Your task to perform on an android device: Do I have any events tomorrow? Image 0: 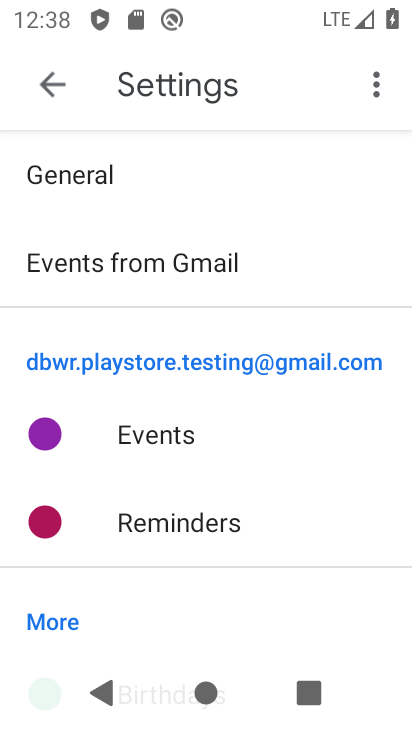
Step 0: press home button
Your task to perform on an android device: Do I have any events tomorrow? Image 1: 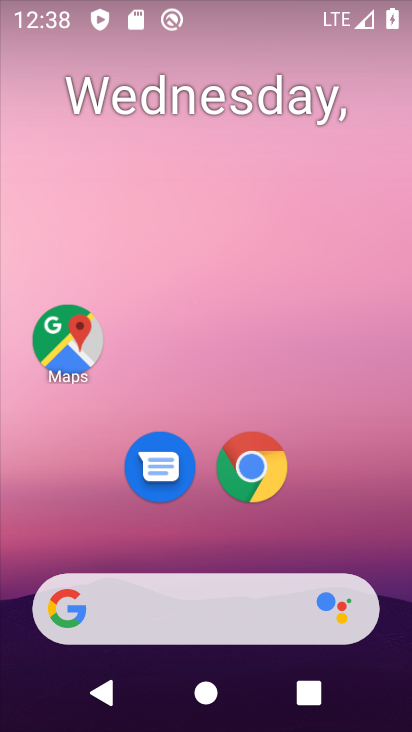
Step 1: drag from (359, 533) to (360, 86)
Your task to perform on an android device: Do I have any events tomorrow? Image 2: 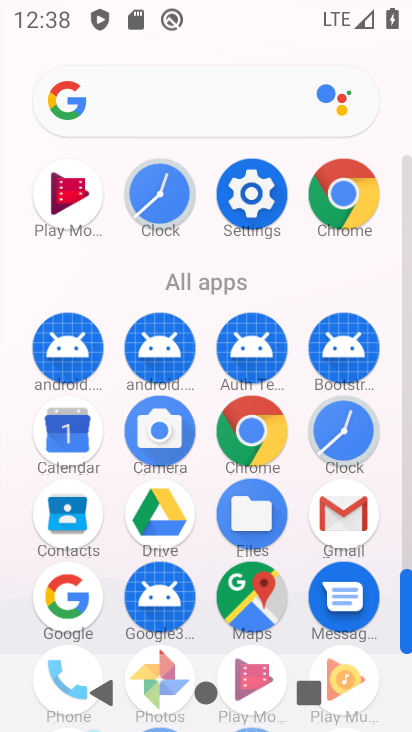
Step 2: click (80, 448)
Your task to perform on an android device: Do I have any events tomorrow? Image 3: 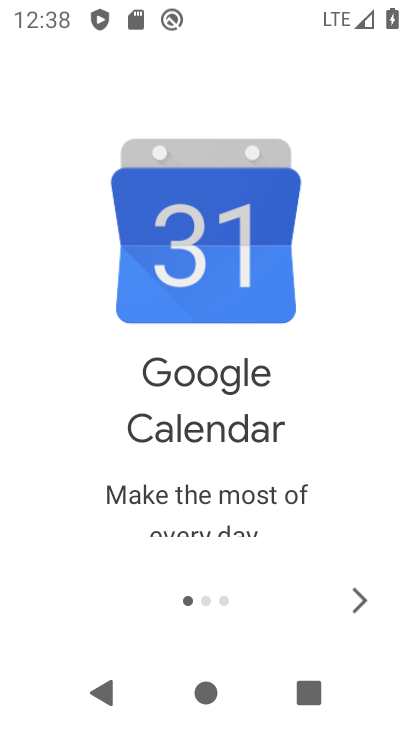
Step 3: click (347, 594)
Your task to perform on an android device: Do I have any events tomorrow? Image 4: 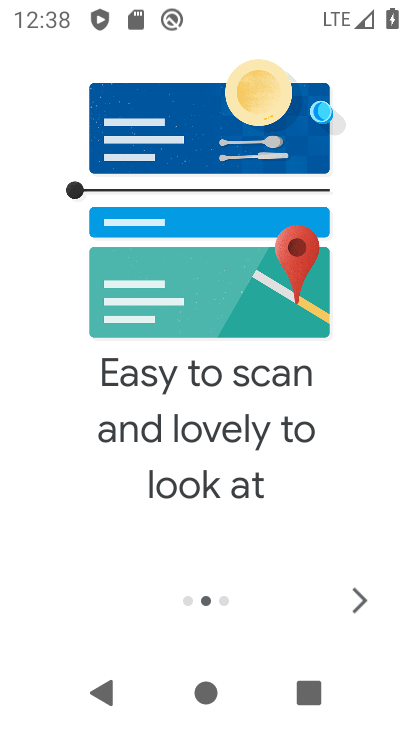
Step 4: click (364, 596)
Your task to perform on an android device: Do I have any events tomorrow? Image 5: 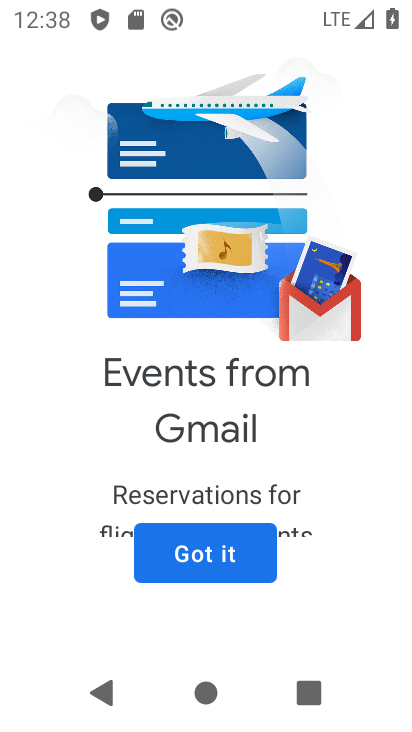
Step 5: click (225, 554)
Your task to perform on an android device: Do I have any events tomorrow? Image 6: 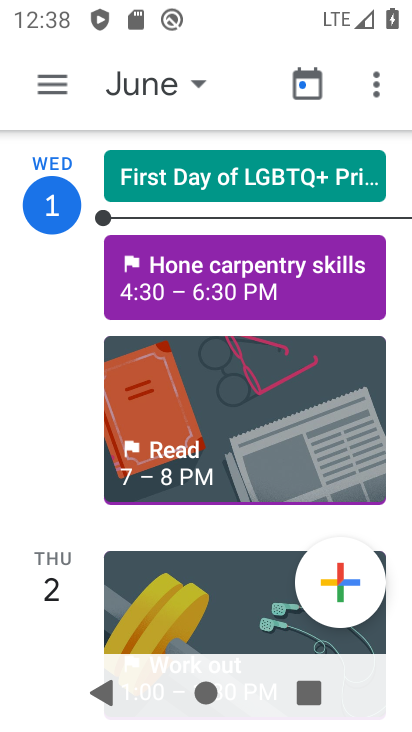
Step 6: drag from (179, 587) to (189, 236)
Your task to perform on an android device: Do I have any events tomorrow? Image 7: 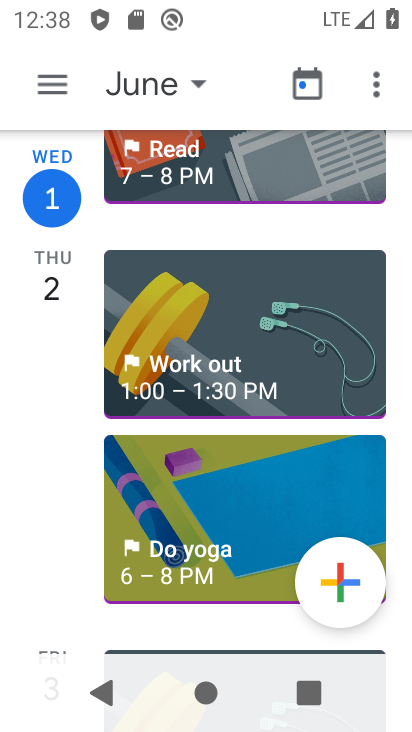
Step 7: click (204, 430)
Your task to perform on an android device: Do I have any events tomorrow? Image 8: 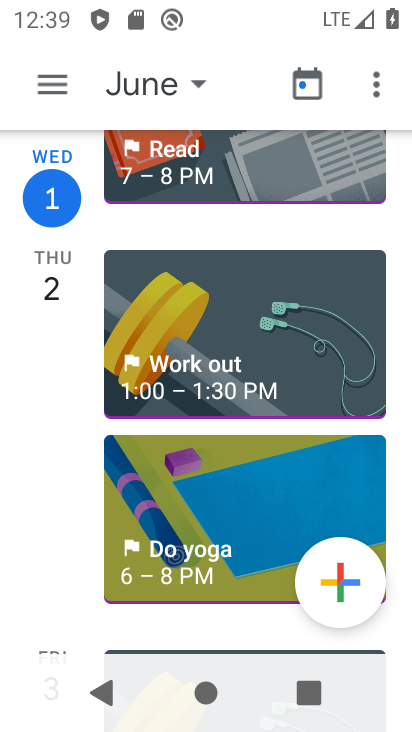
Step 8: click (256, 344)
Your task to perform on an android device: Do I have any events tomorrow? Image 9: 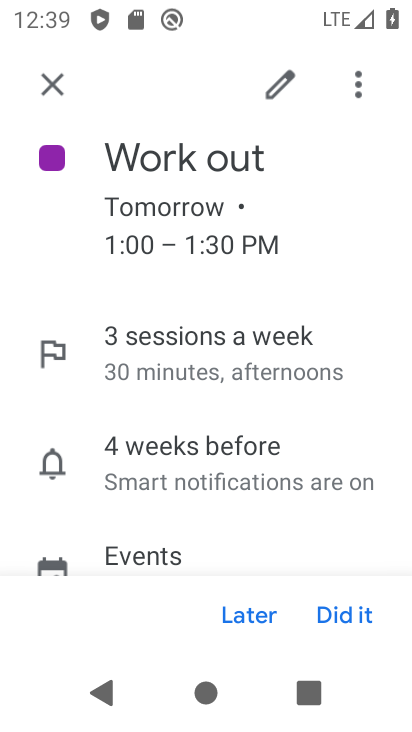
Step 9: task complete